Your task to perform on an android device: find snoozed emails in the gmail app Image 0: 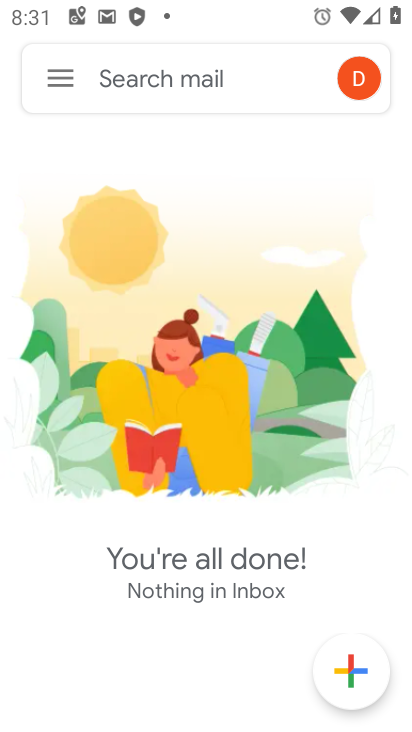
Step 0: press home button
Your task to perform on an android device: find snoozed emails in the gmail app Image 1: 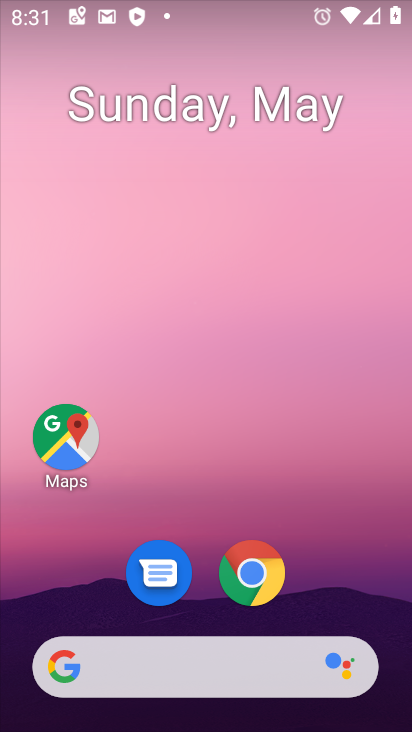
Step 1: drag from (211, 481) to (202, 4)
Your task to perform on an android device: find snoozed emails in the gmail app Image 2: 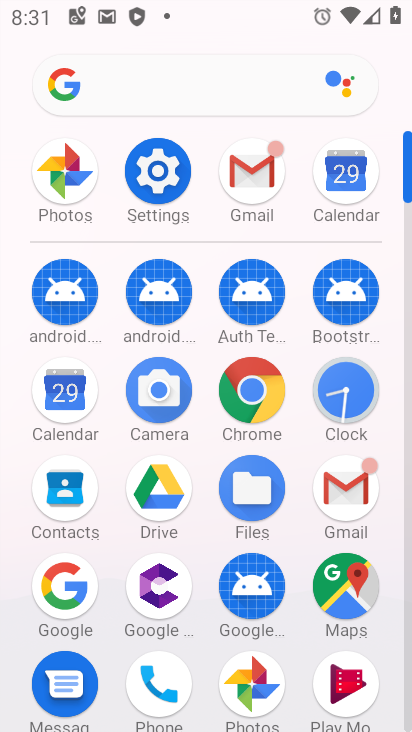
Step 2: click (249, 184)
Your task to perform on an android device: find snoozed emails in the gmail app Image 3: 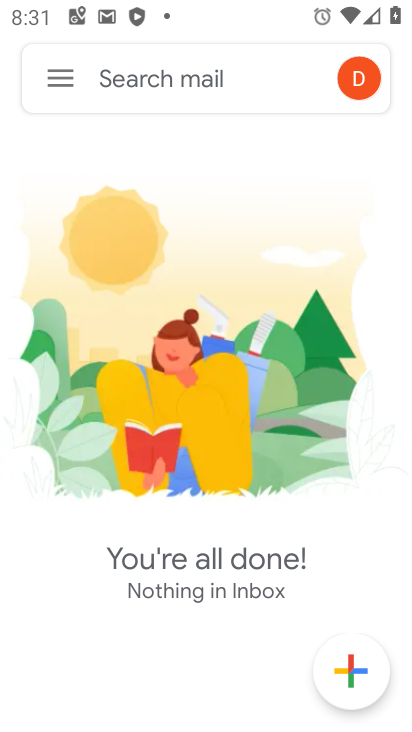
Step 3: click (62, 74)
Your task to perform on an android device: find snoozed emails in the gmail app Image 4: 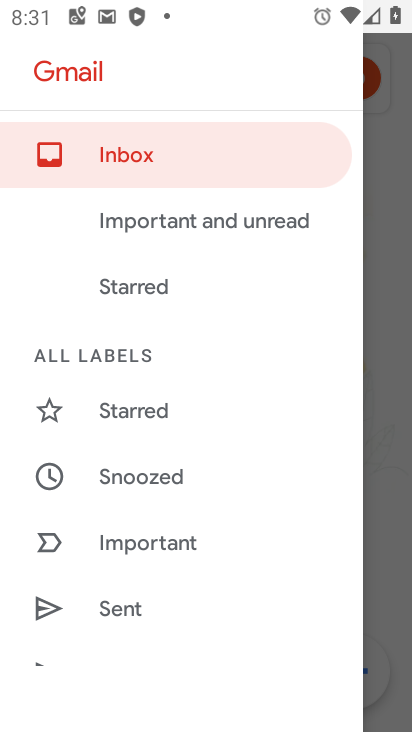
Step 4: click (188, 470)
Your task to perform on an android device: find snoozed emails in the gmail app Image 5: 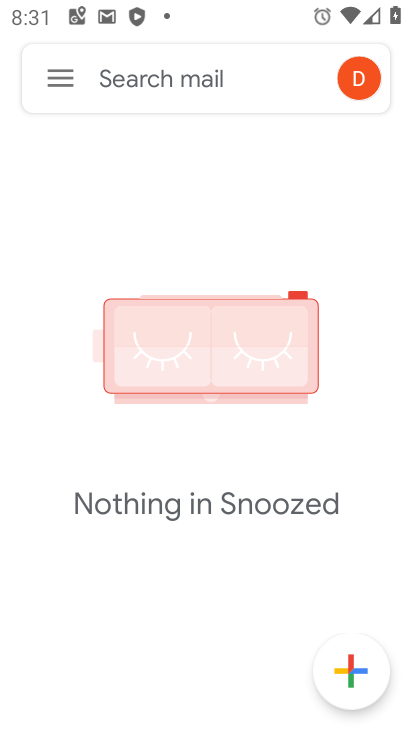
Step 5: task complete